Your task to perform on an android device: set an alarm Image 0: 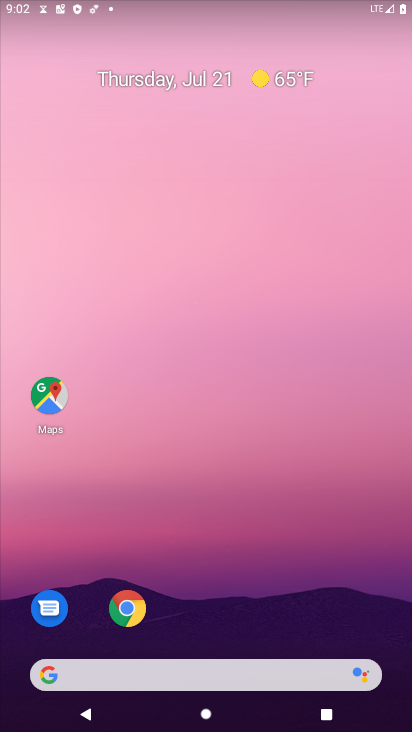
Step 0: drag from (205, 670) to (261, 136)
Your task to perform on an android device: set an alarm Image 1: 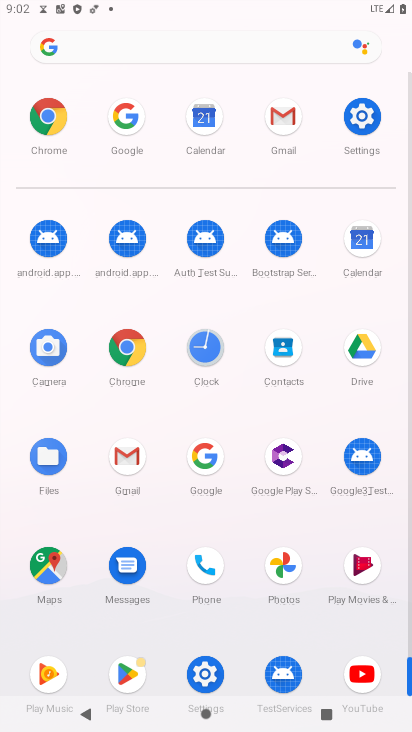
Step 1: click (204, 343)
Your task to perform on an android device: set an alarm Image 2: 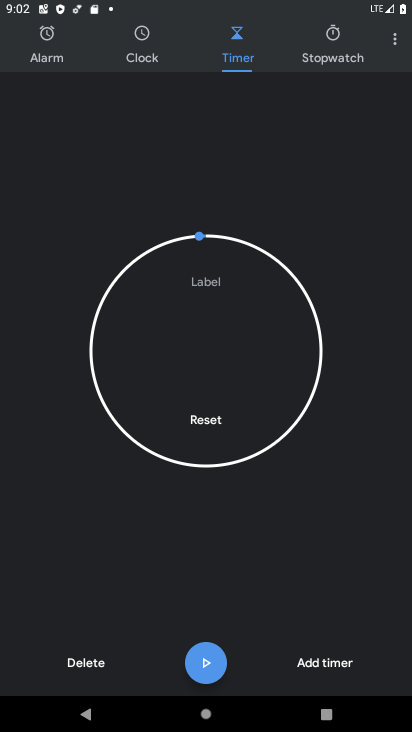
Step 2: click (45, 37)
Your task to perform on an android device: set an alarm Image 3: 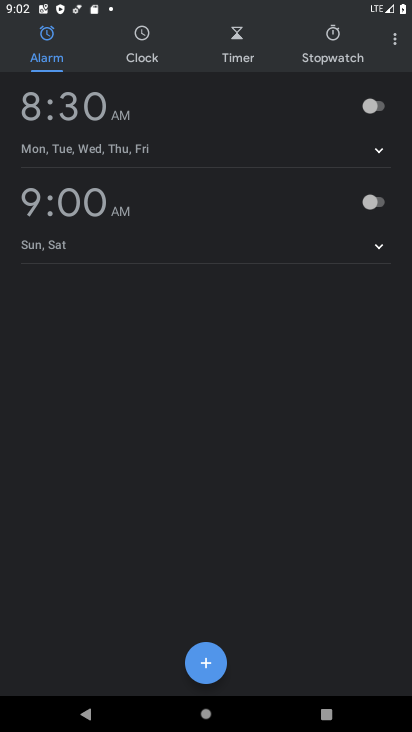
Step 3: click (204, 662)
Your task to perform on an android device: set an alarm Image 4: 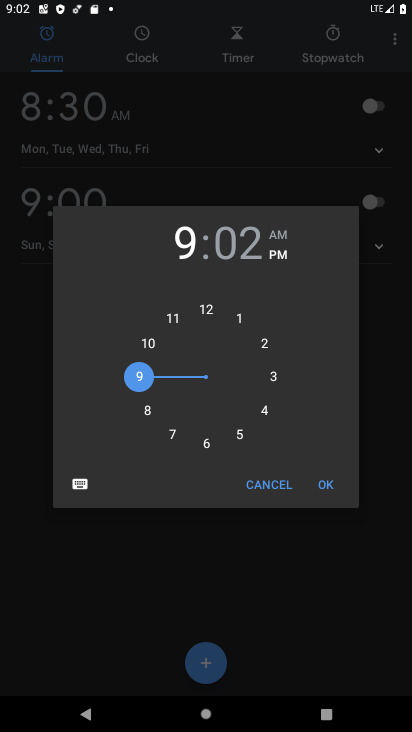
Step 4: click (210, 312)
Your task to perform on an android device: set an alarm Image 5: 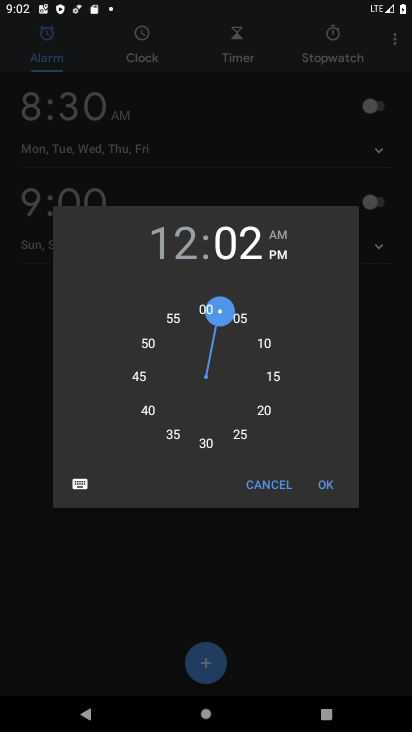
Step 5: click (210, 312)
Your task to perform on an android device: set an alarm Image 6: 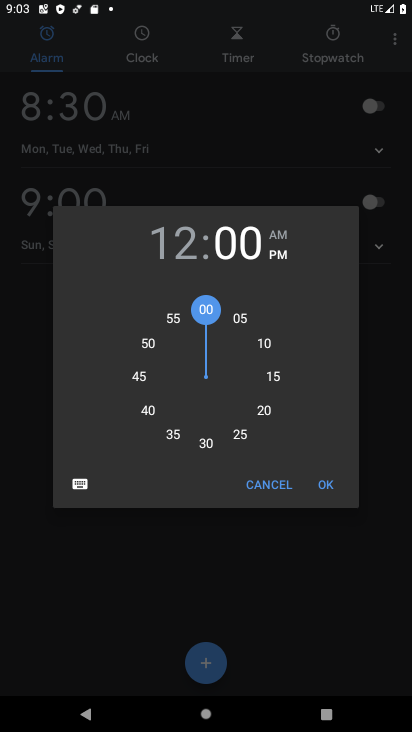
Step 6: click (330, 482)
Your task to perform on an android device: set an alarm Image 7: 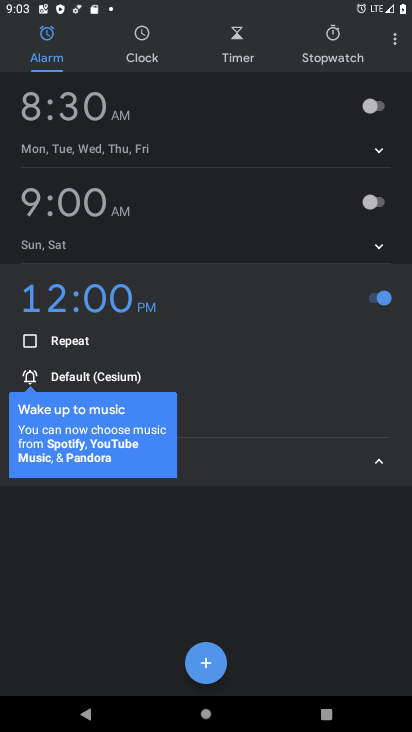
Step 7: click (376, 465)
Your task to perform on an android device: set an alarm Image 8: 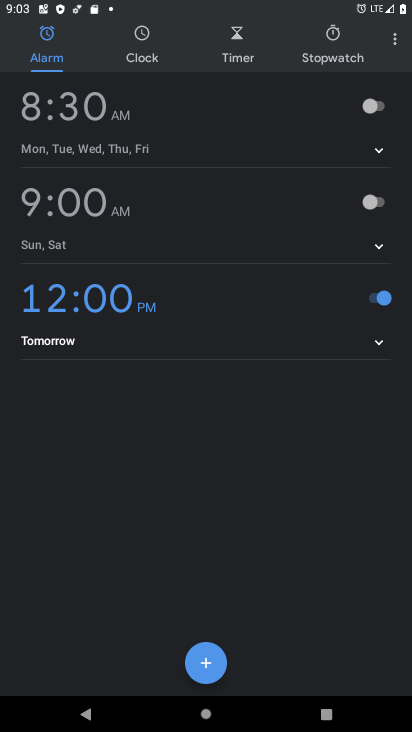
Step 8: task complete